Your task to perform on an android device: check battery use Image 0: 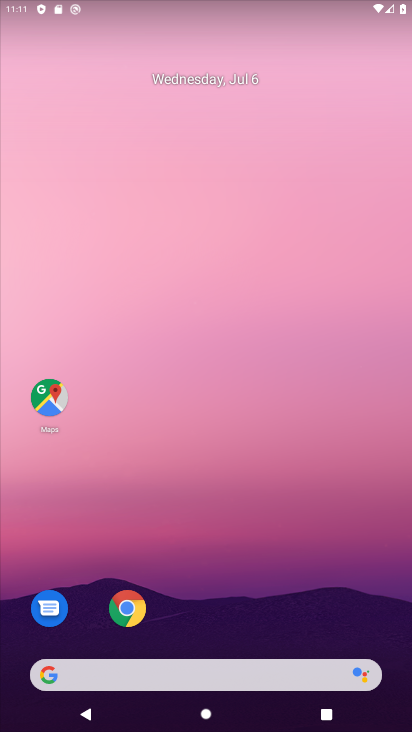
Step 0: click (203, 130)
Your task to perform on an android device: check battery use Image 1: 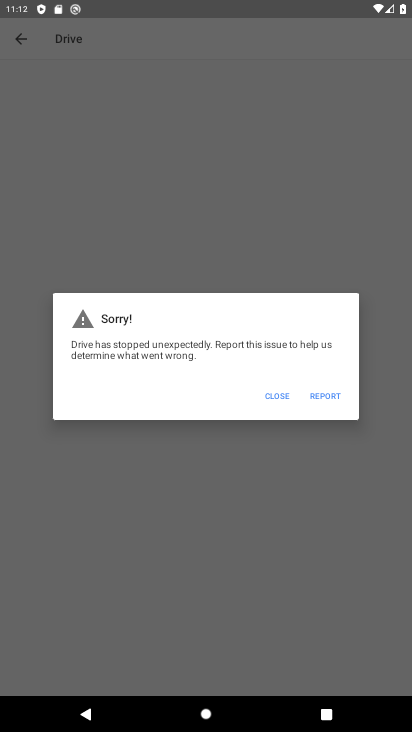
Step 1: press home button
Your task to perform on an android device: check battery use Image 2: 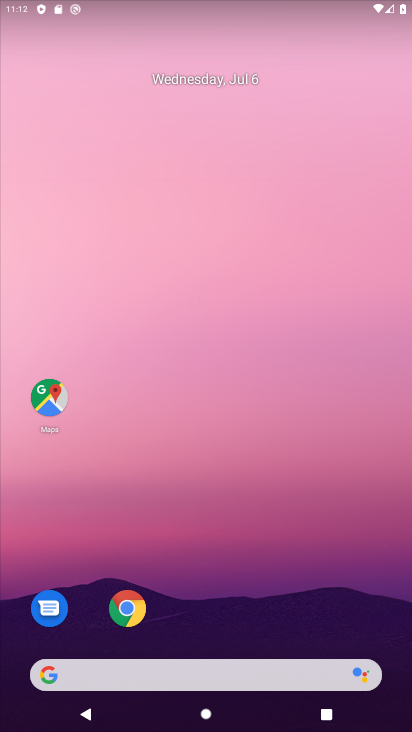
Step 2: drag from (265, 560) to (231, 53)
Your task to perform on an android device: check battery use Image 3: 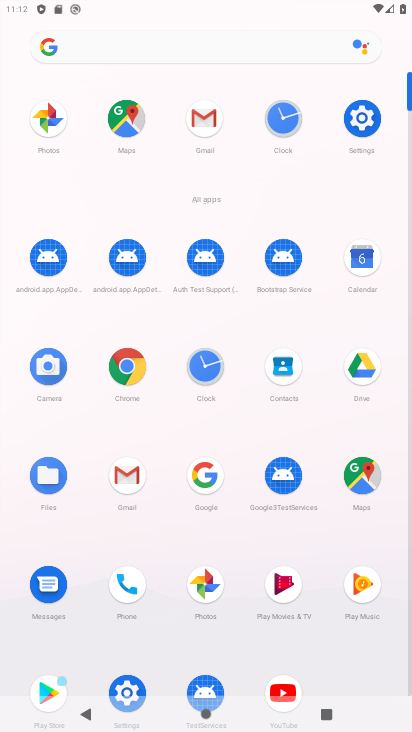
Step 3: click (122, 680)
Your task to perform on an android device: check battery use Image 4: 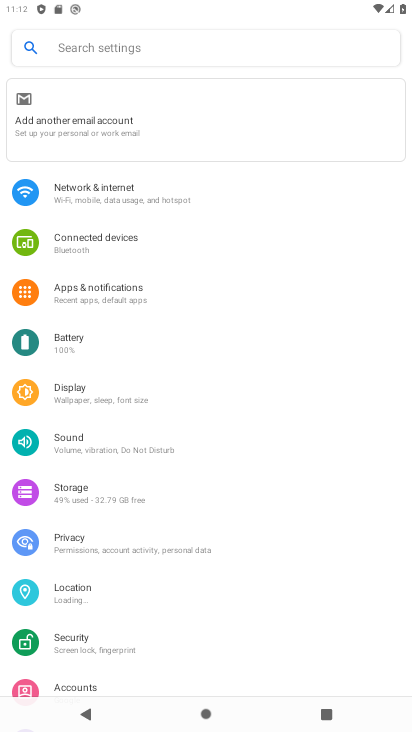
Step 4: click (66, 350)
Your task to perform on an android device: check battery use Image 5: 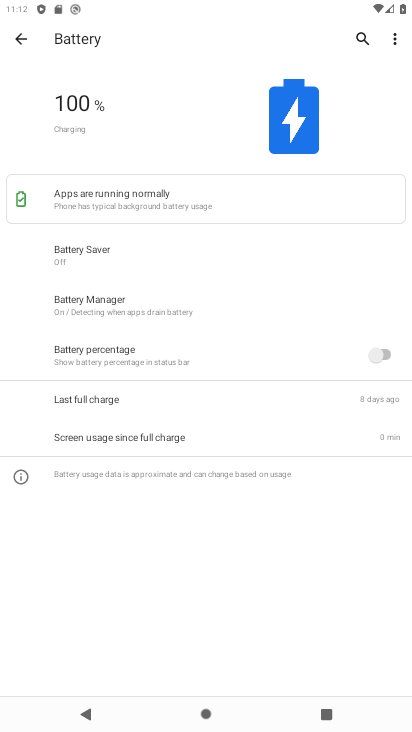
Step 5: task complete